Your task to perform on an android device: open the mobile data screen to see how much data has been used Image 0: 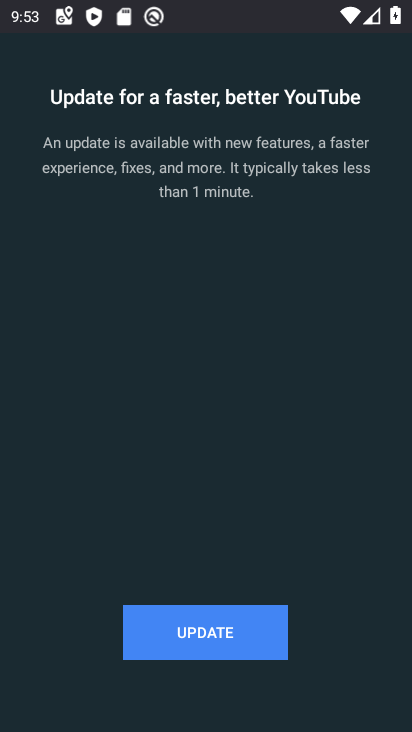
Step 0: press home button
Your task to perform on an android device: open the mobile data screen to see how much data has been used Image 1: 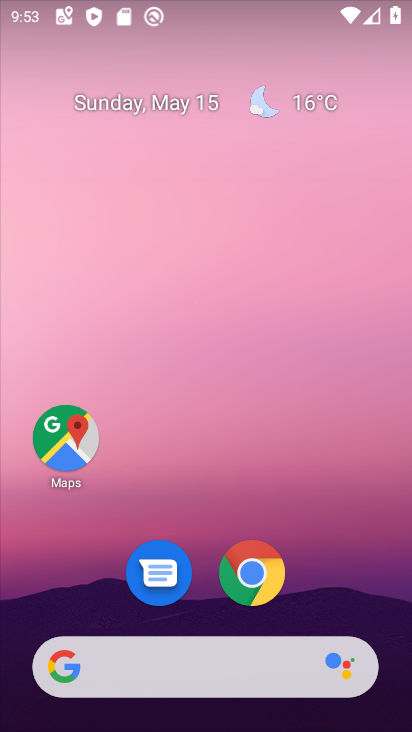
Step 1: drag from (359, 6) to (353, 259)
Your task to perform on an android device: open the mobile data screen to see how much data has been used Image 2: 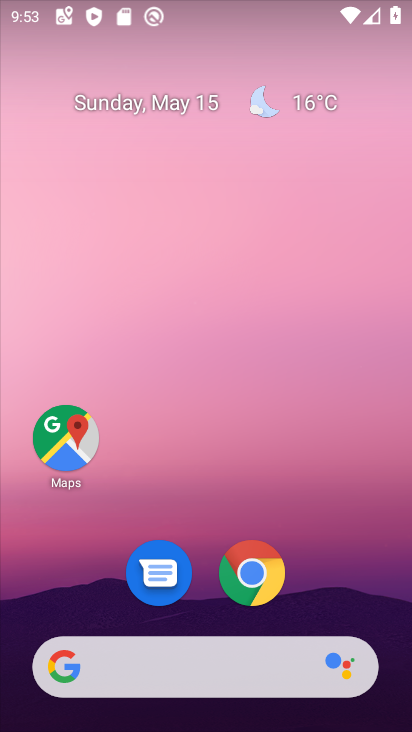
Step 2: drag from (245, 4) to (284, 632)
Your task to perform on an android device: open the mobile data screen to see how much data has been used Image 3: 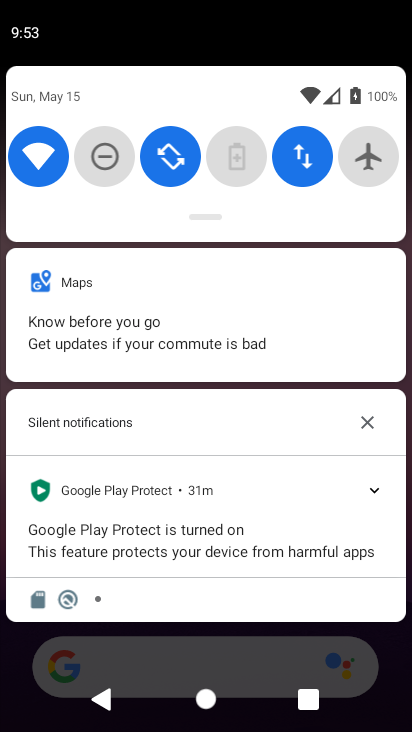
Step 3: drag from (200, 210) to (195, 584)
Your task to perform on an android device: open the mobile data screen to see how much data has been used Image 4: 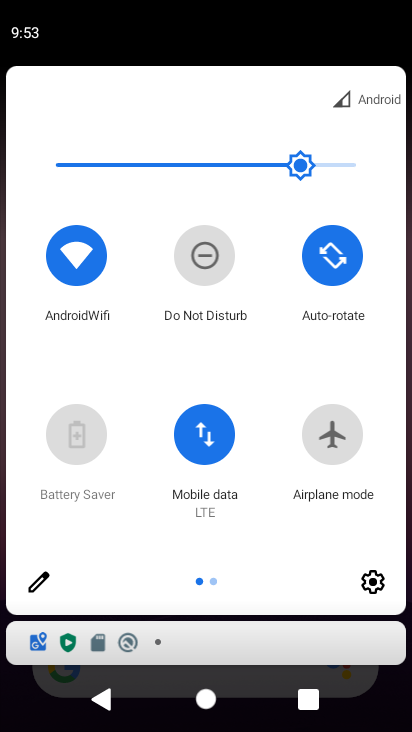
Step 4: click (211, 428)
Your task to perform on an android device: open the mobile data screen to see how much data has been used Image 5: 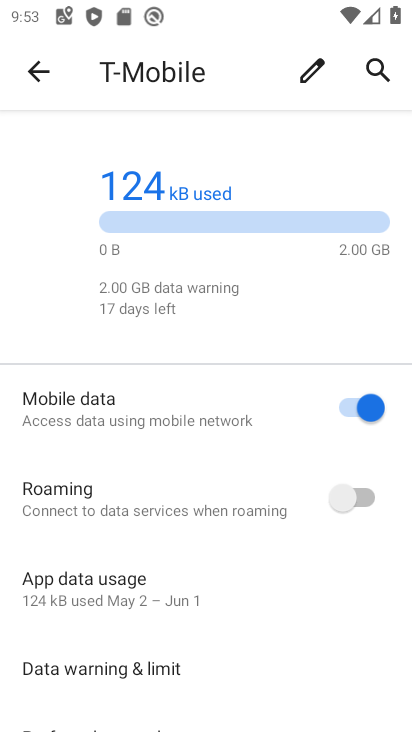
Step 5: task complete